Your task to perform on an android device: turn on showing notifications on the lock screen Image 0: 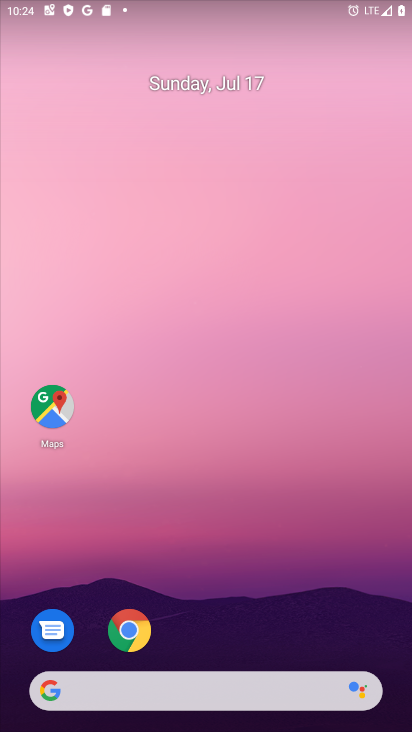
Step 0: drag from (217, 649) to (271, 54)
Your task to perform on an android device: turn on showing notifications on the lock screen Image 1: 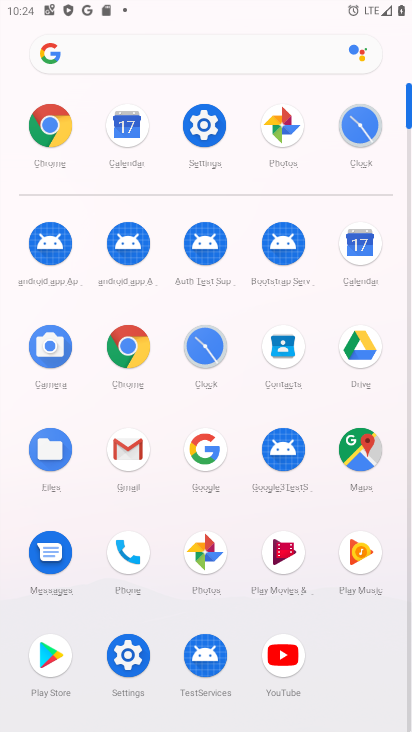
Step 1: click (199, 115)
Your task to perform on an android device: turn on showing notifications on the lock screen Image 2: 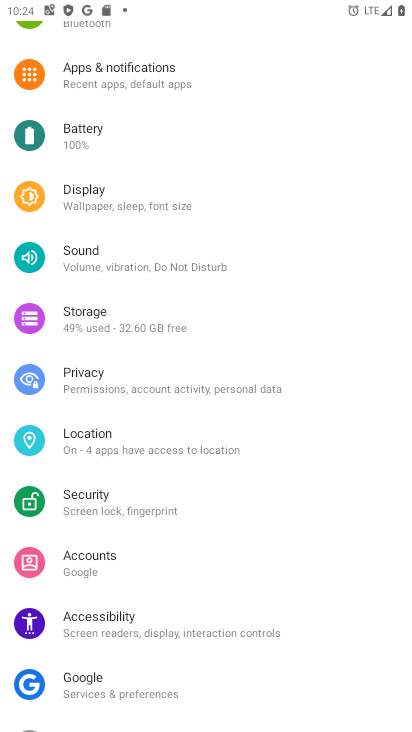
Step 2: click (129, 70)
Your task to perform on an android device: turn on showing notifications on the lock screen Image 3: 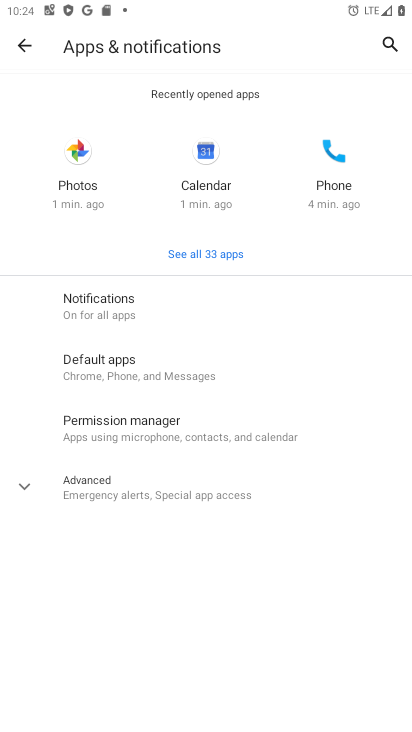
Step 3: click (153, 300)
Your task to perform on an android device: turn on showing notifications on the lock screen Image 4: 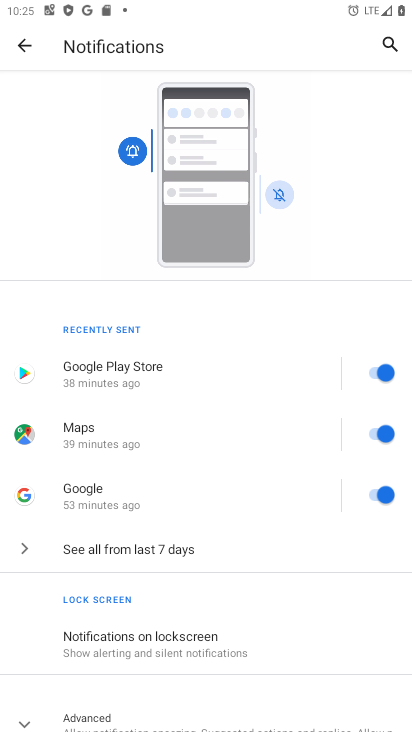
Step 4: click (150, 644)
Your task to perform on an android device: turn on showing notifications on the lock screen Image 5: 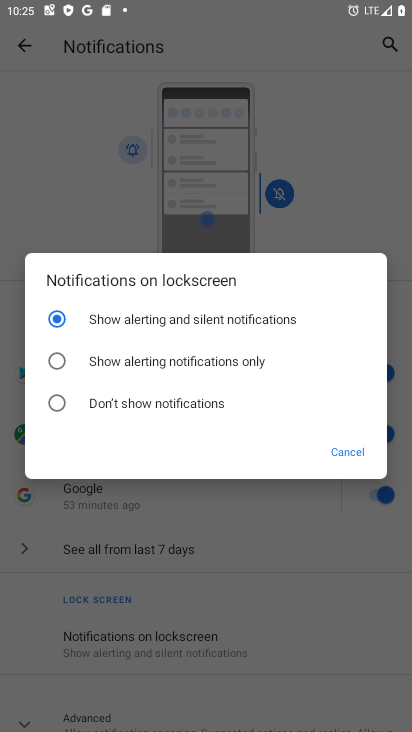
Step 5: click (179, 353)
Your task to perform on an android device: turn on showing notifications on the lock screen Image 6: 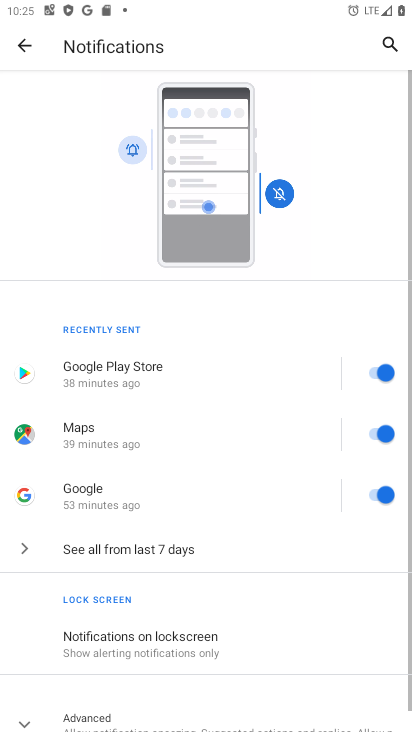
Step 6: task complete